Your task to perform on an android device: see tabs open on other devices in the chrome app Image 0: 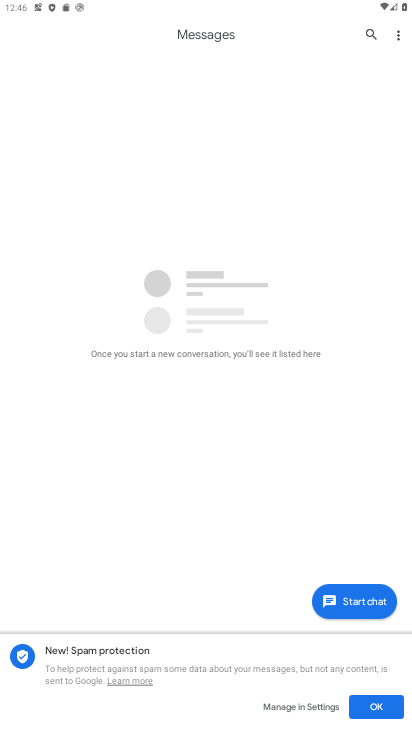
Step 0: press home button
Your task to perform on an android device: see tabs open on other devices in the chrome app Image 1: 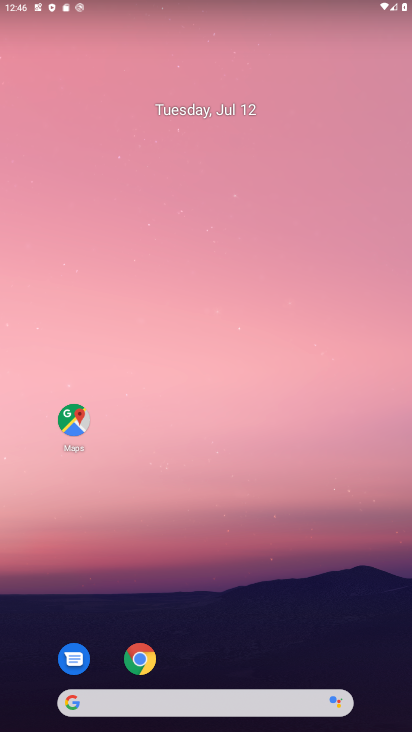
Step 1: click (139, 660)
Your task to perform on an android device: see tabs open on other devices in the chrome app Image 2: 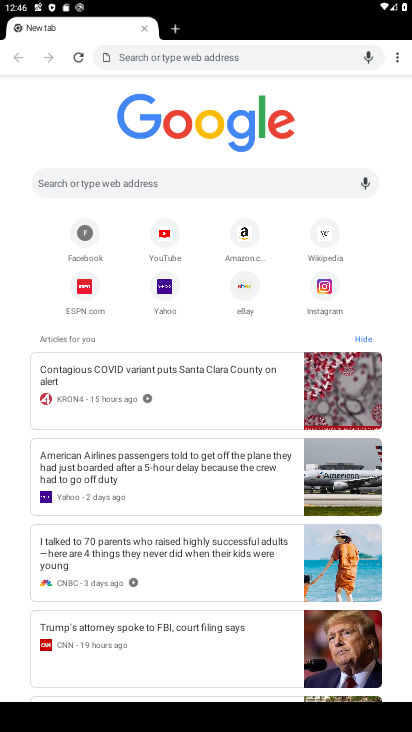
Step 2: click (398, 57)
Your task to perform on an android device: see tabs open on other devices in the chrome app Image 3: 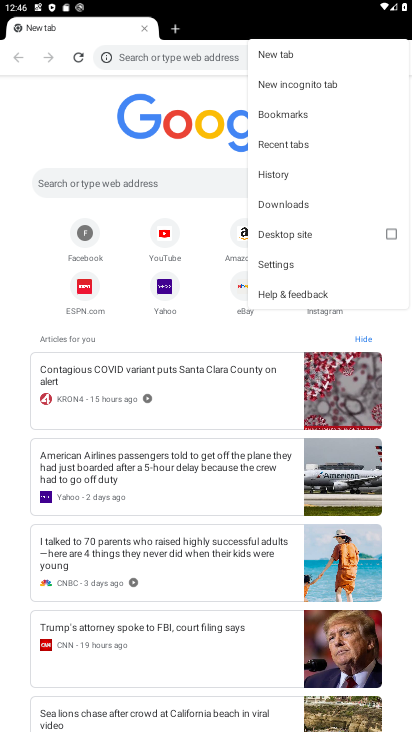
Step 3: click (277, 141)
Your task to perform on an android device: see tabs open on other devices in the chrome app Image 4: 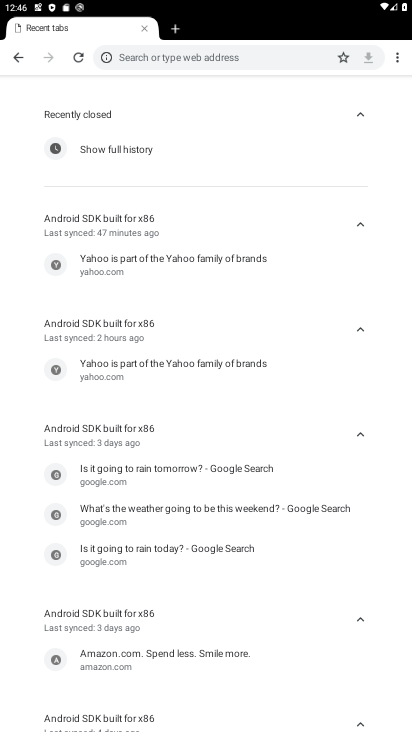
Step 4: task complete